Your task to perform on an android device: Open the Play Movies app and select the watchlist tab. Image 0: 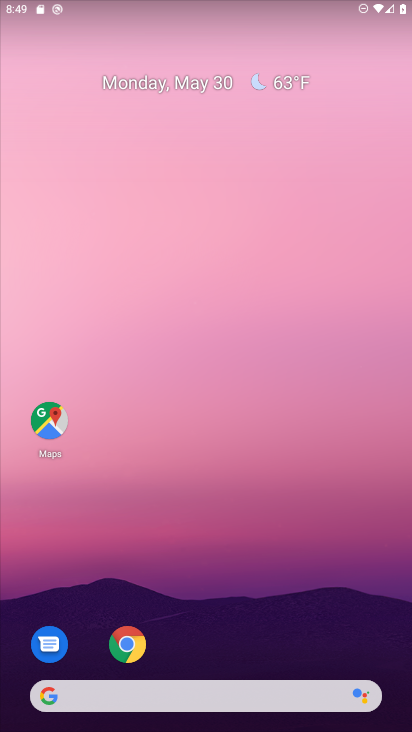
Step 0: drag from (204, 636) to (222, 117)
Your task to perform on an android device: Open the Play Movies app and select the watchlist tab. Image 1: 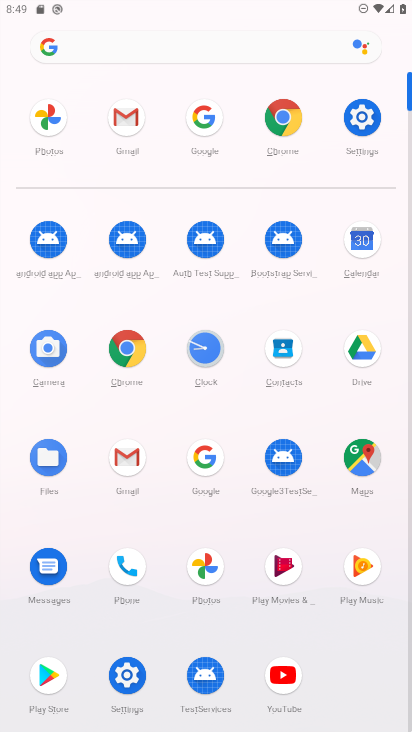
Step 1: click (292, 567)
Your task to perform on an android device: Open the Play Movies app and select the watchlist tab. Image 2: 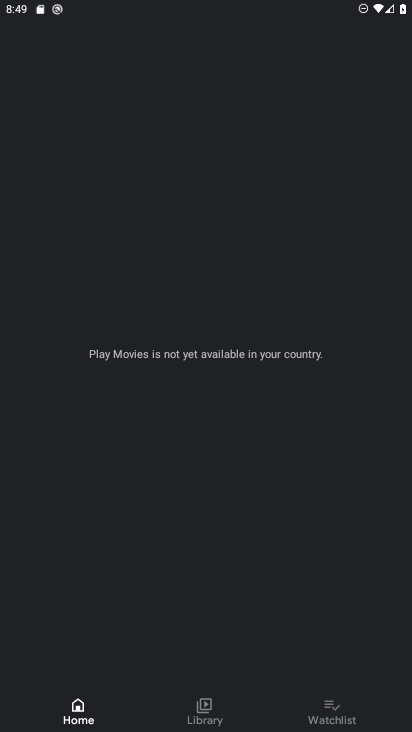
Step 2: click (333, 708)
Your task to perform on an android device: Open the Play Movies app and select the watchlist tab. Image 3: 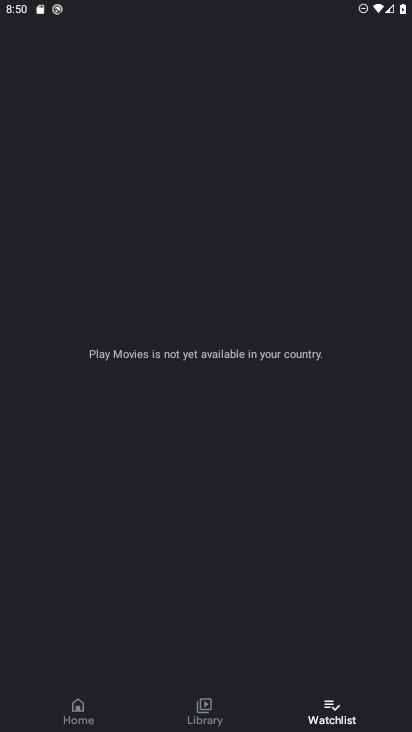
Step 3: task complete